Your task to perform on an android device: Open the web browser Image 0: 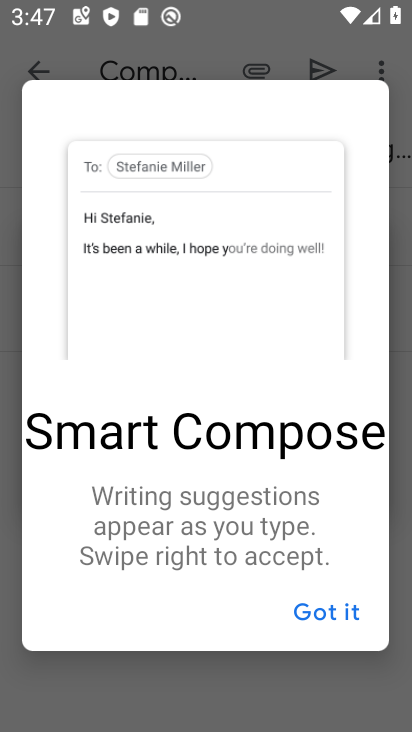
Step 0: press home button
Your task to perform on an android device: Open the web browser Image 1: 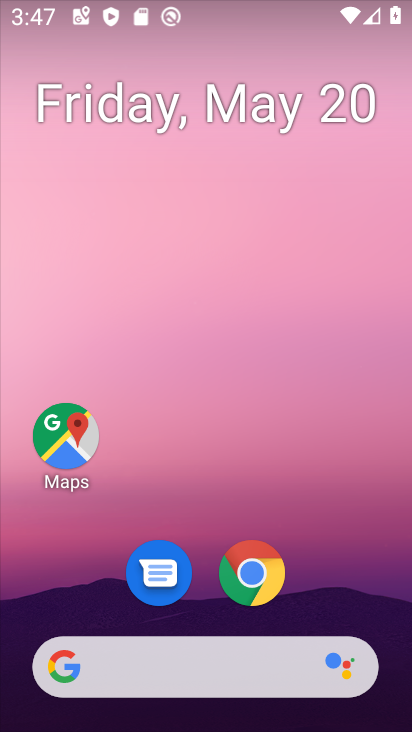
Step 1: click (256, 579)
Your task to perform on an android device: Open the web browser Image 2: 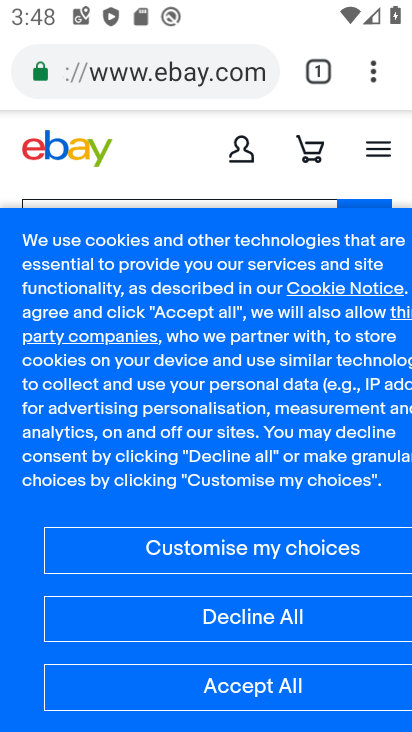
Step 2: task complete